Your task to perform on an android device: Open the Play Movies app and select the watchlist tab. Image 0: 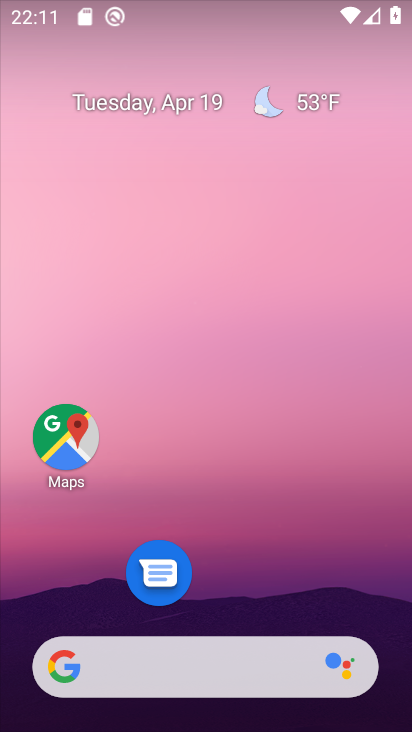
Step 0: drag from (205, 565) to (204, 281)
Your task to perform on an android device: Open the Play Movies app and select the watchlist tab. Image 1: 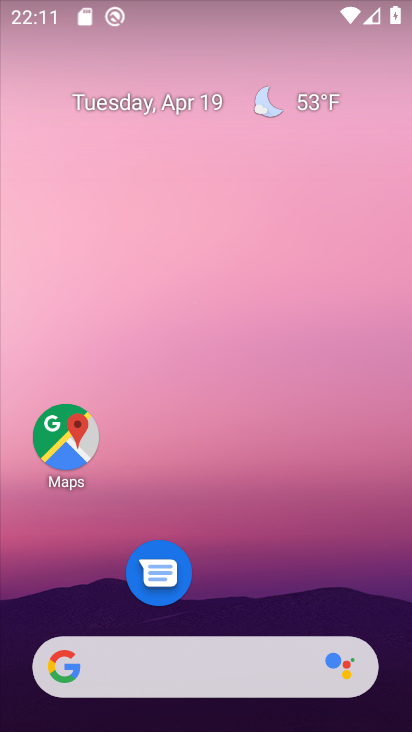
Step 1: drag from (229, 611) to (242, 137)
Your task to perform on an android device: Open the Play Movies app and select the watchlist tab. Image 2: 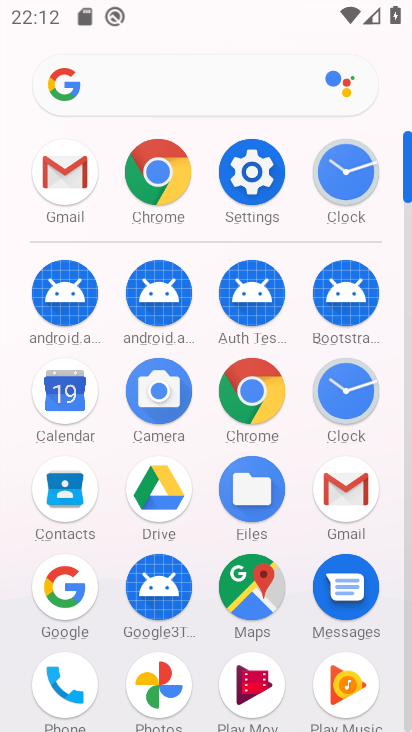
Step 2: click (257, 677)
Your task to perform on an android device: Open the Play Movies app and select the watchlist tab. Image 3: 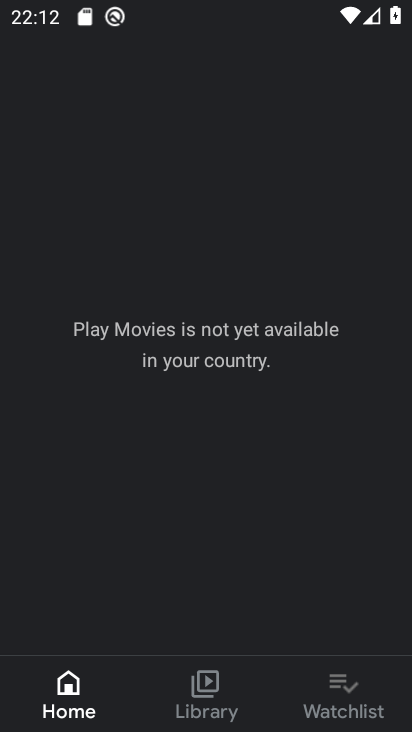
Step 3: click (353, 676)
Your task to perform on an android device: Open the Play Movies app and select the watchlist tab. Image 4: 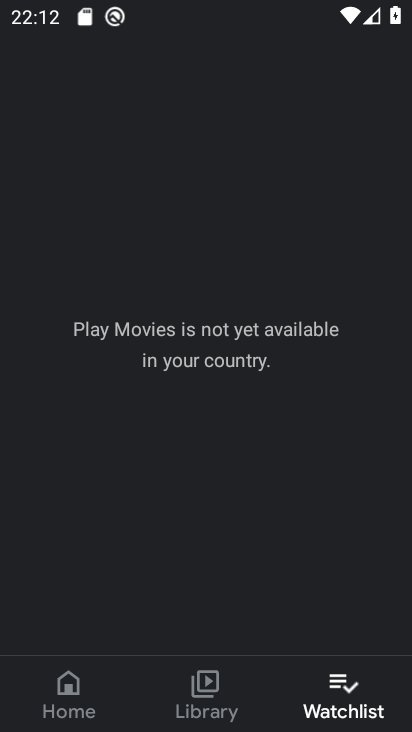
Step 4: task complete